Your task to perform on an android device: View the shopping cart on amazon. Image 0: 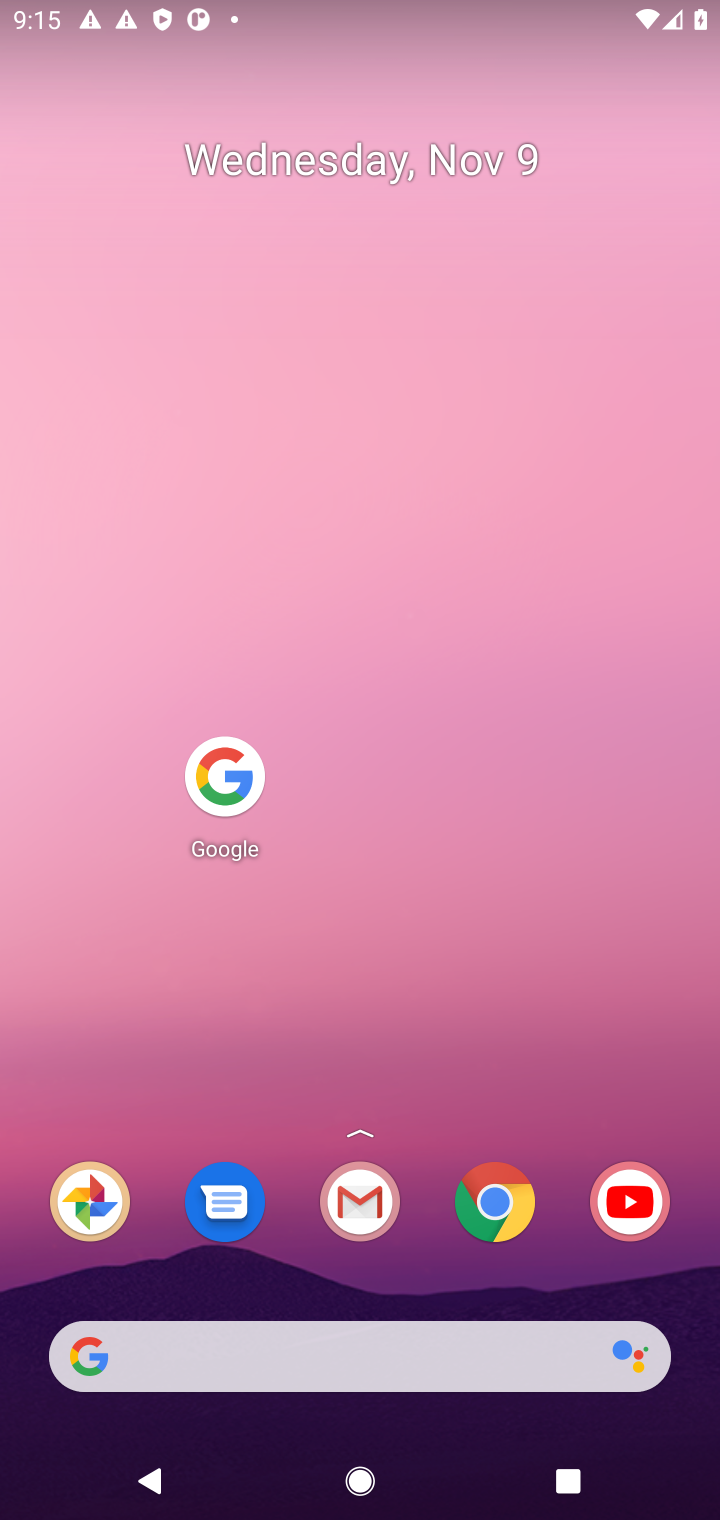
Step 0: click (231, 788)
Your task to perform on an android device: View the shopping cart on amazon. Image 1: 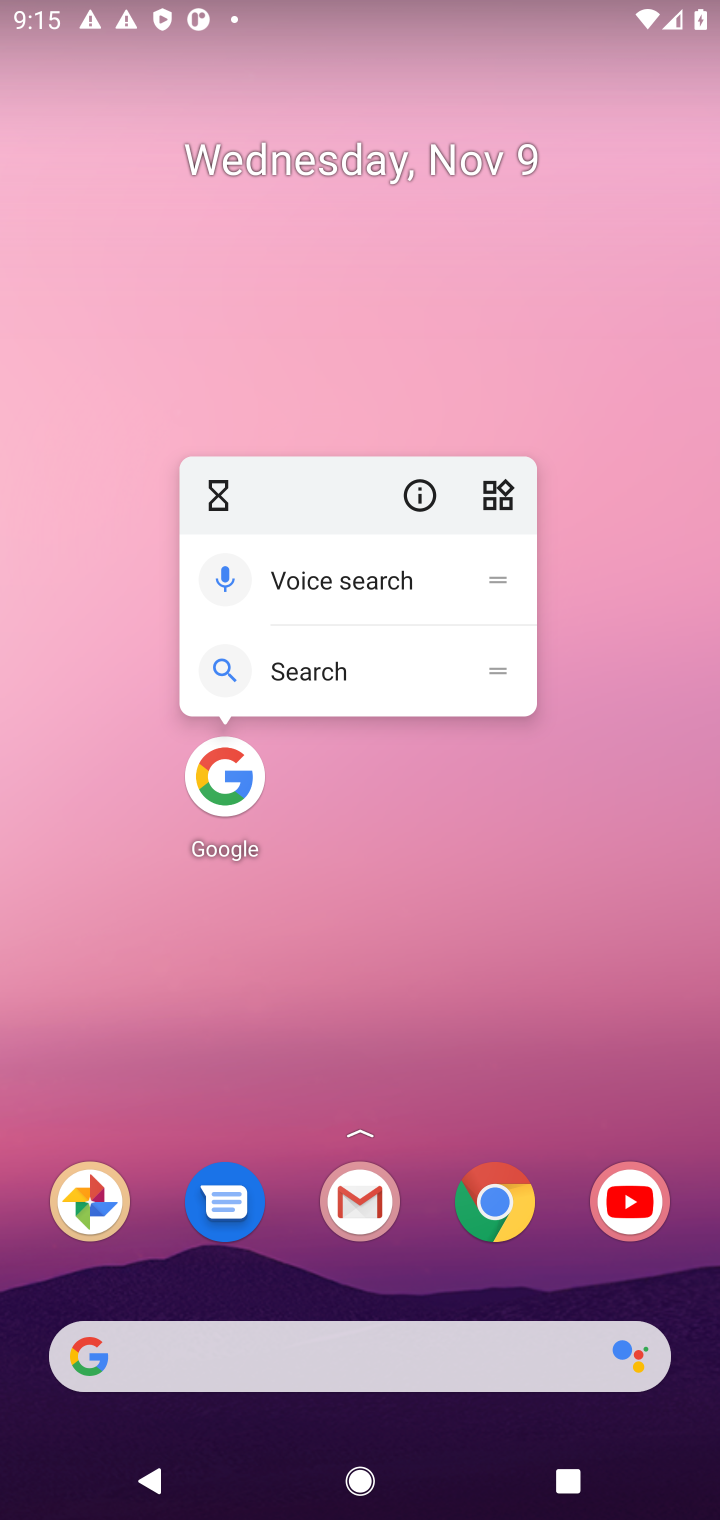
Step 1: click (231, 787)
Your task to perform on an android device: View the shopping cart on amazon. Image 2: 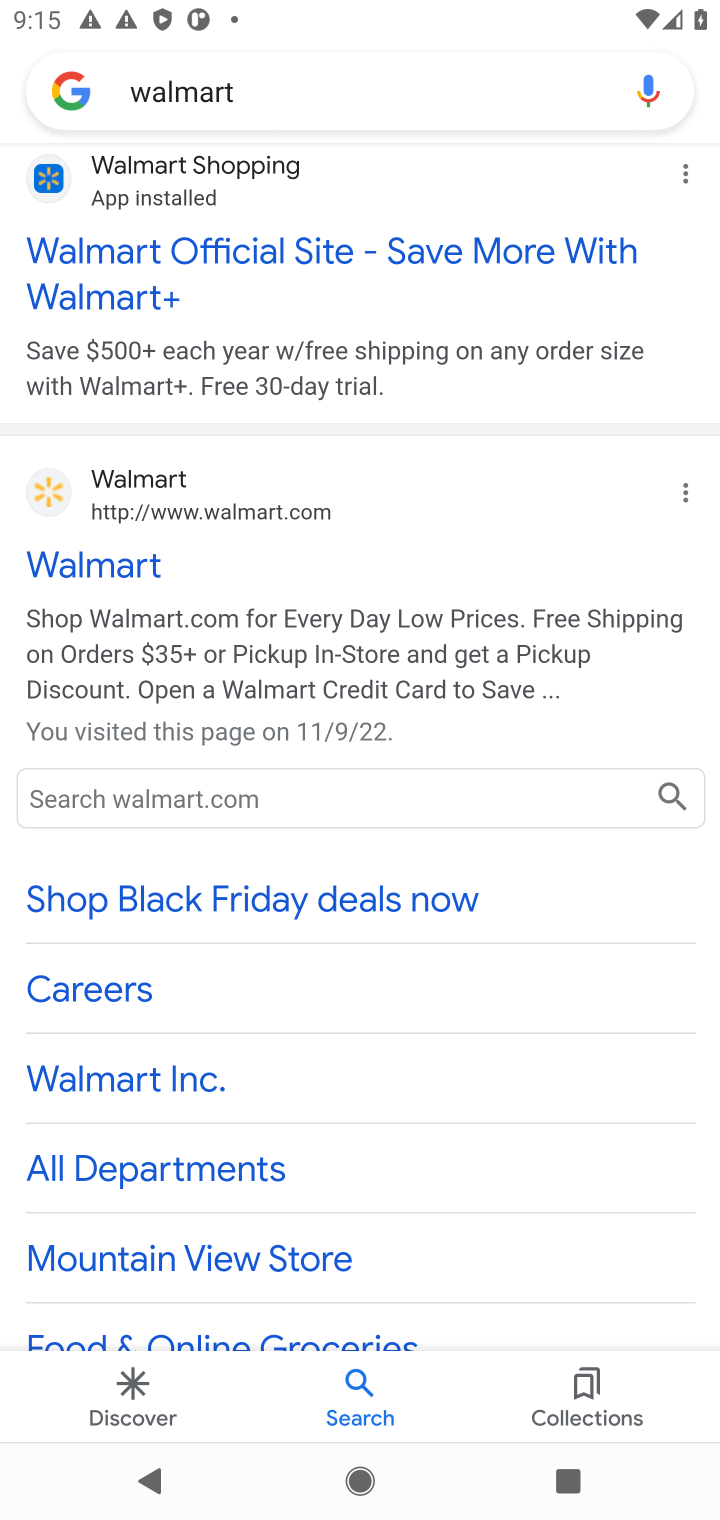
Step 2: click (319, 95)
Your task to perform on an android device: View the shopping cart on amazon. Image 3: 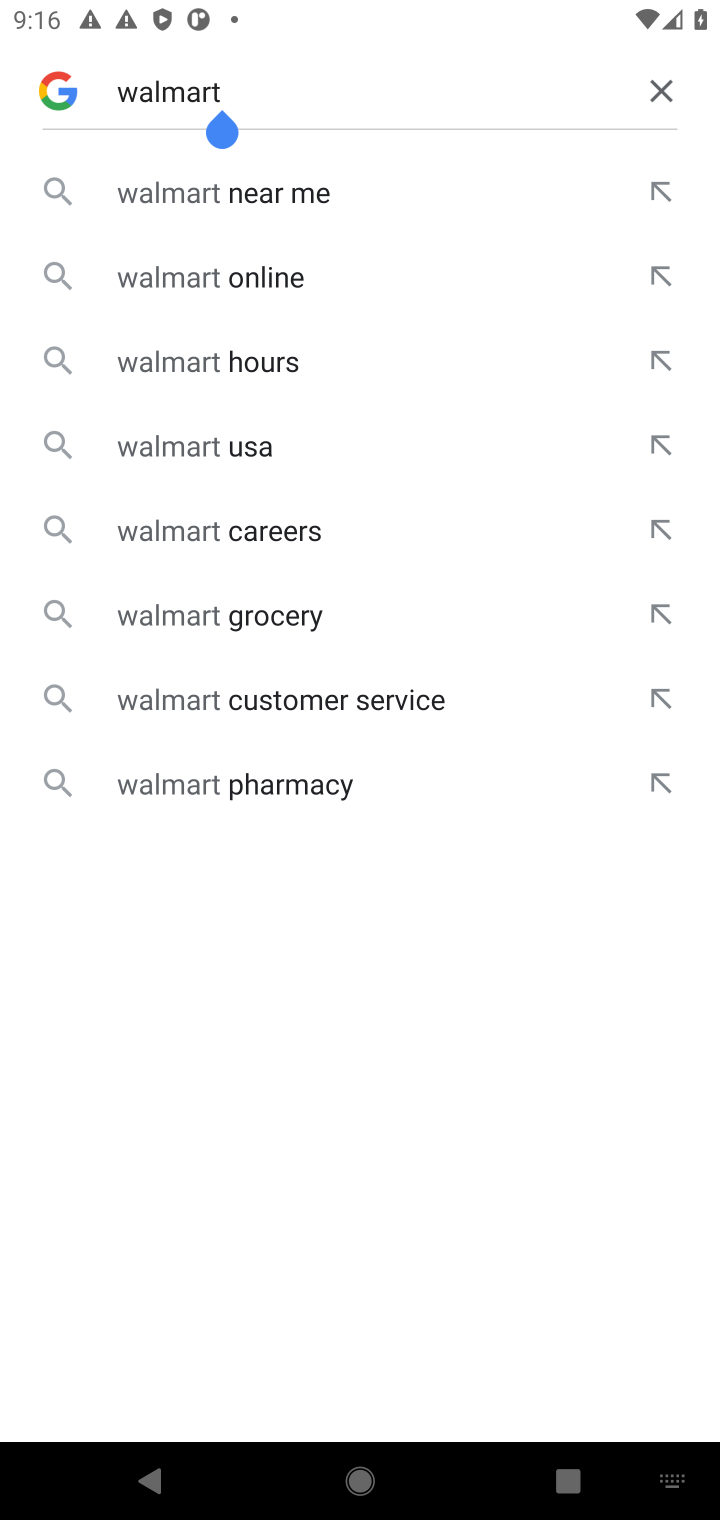
Step 3: click (647, 85)
Your task to perform on an android device: View the shopping cart on amazon. Image 4: 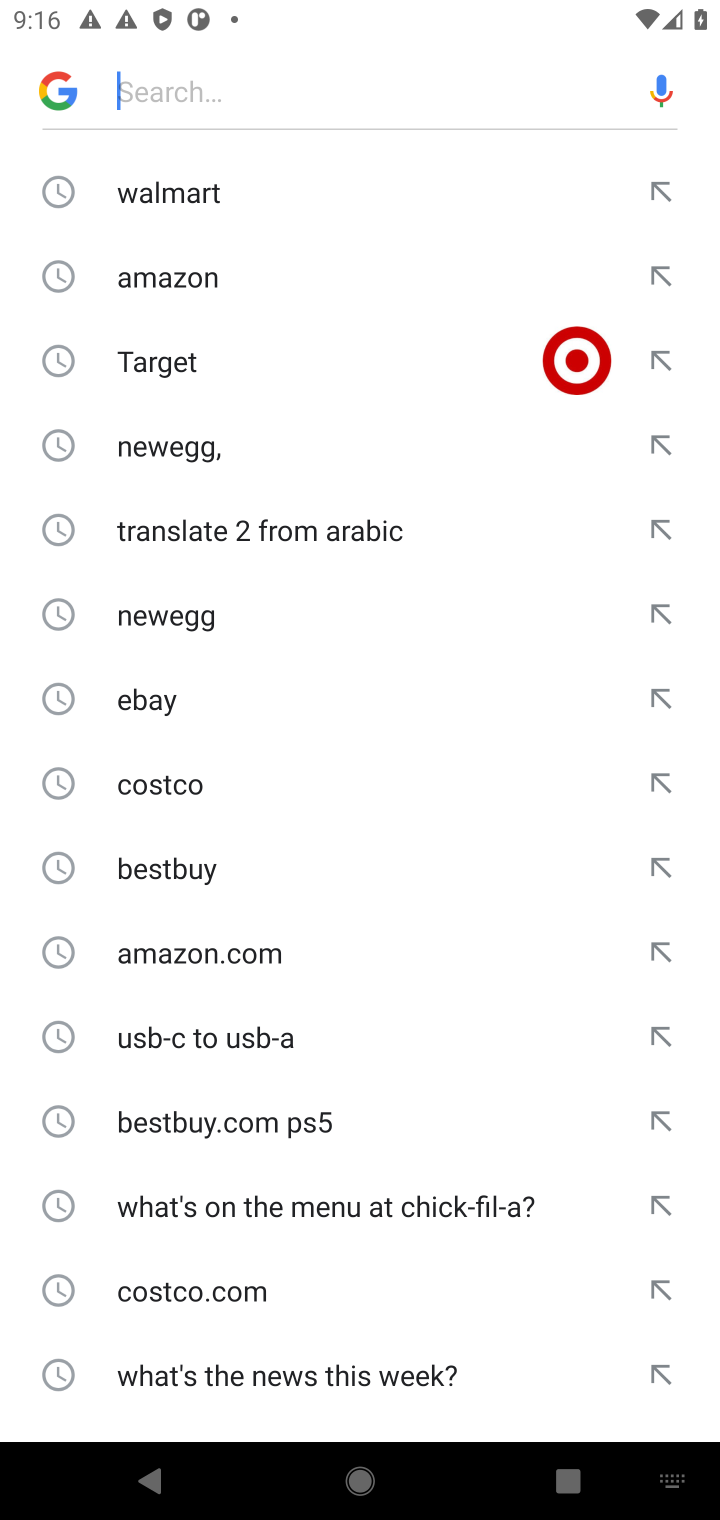
Step 4: click (176, 279)
Your task to perform on an android device: View the shopping cart on amazon. Image 5: 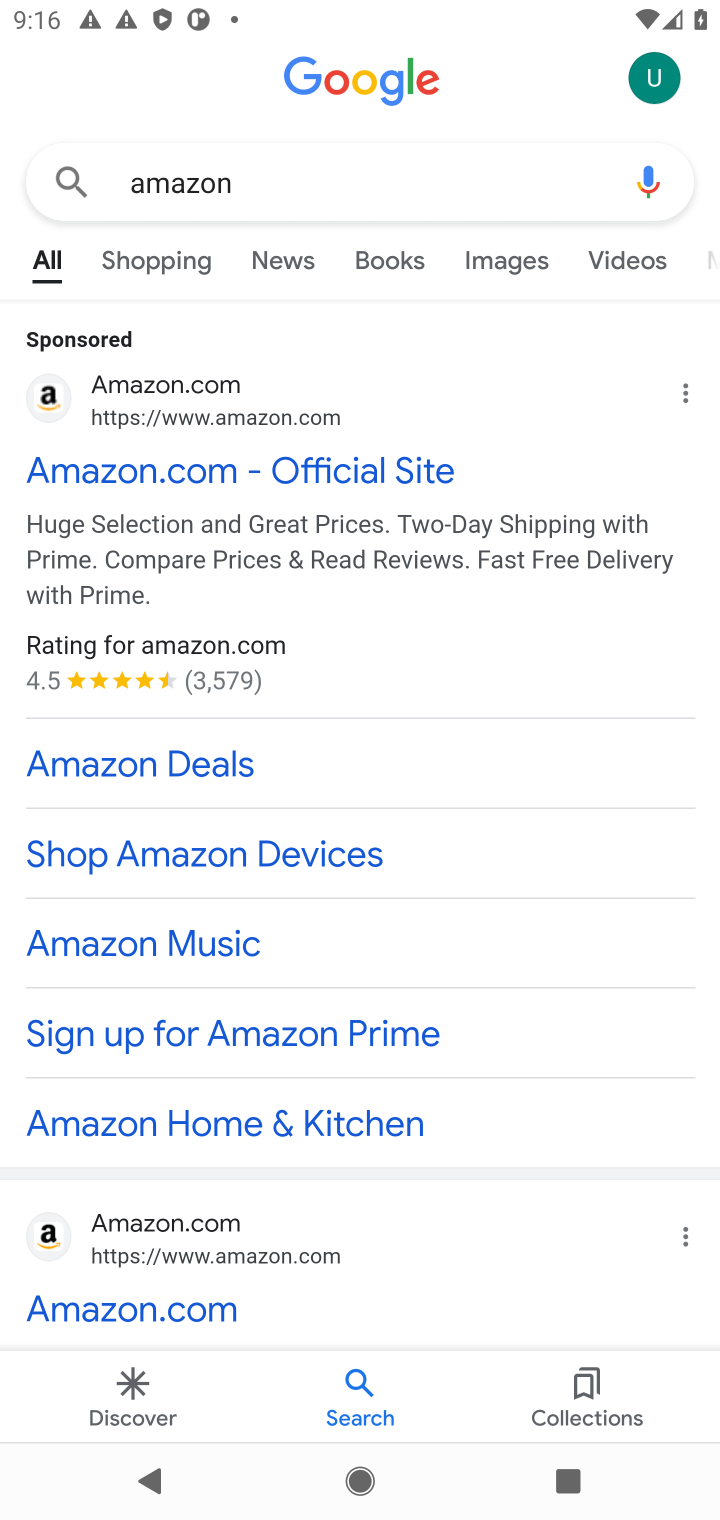
Step 5: click (203, 472)
Your task to perform on an android device: View the shopping cart on amazon. Image 6: 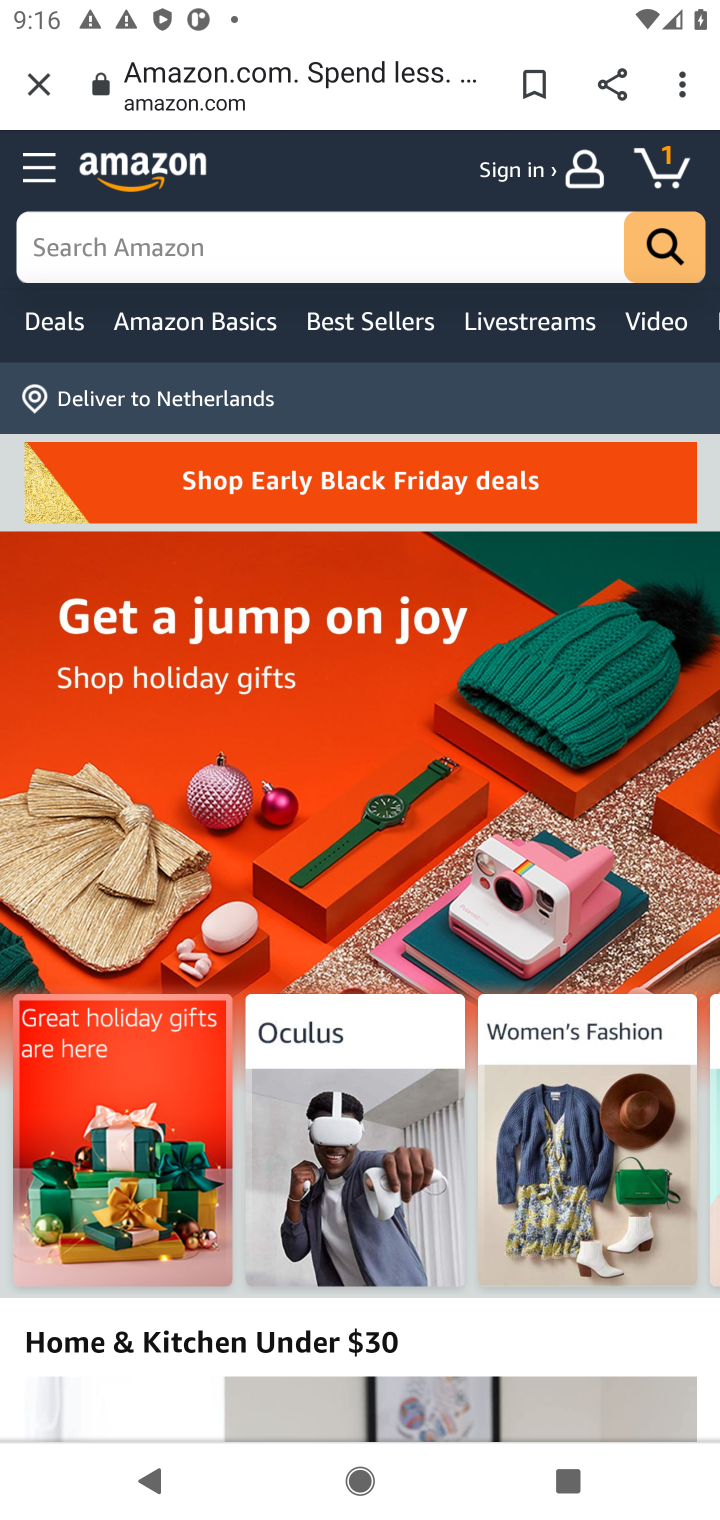
Step 6: click (667, 166)
Your task to perform on an android device: View the shopping cart on amazon. Image 7: 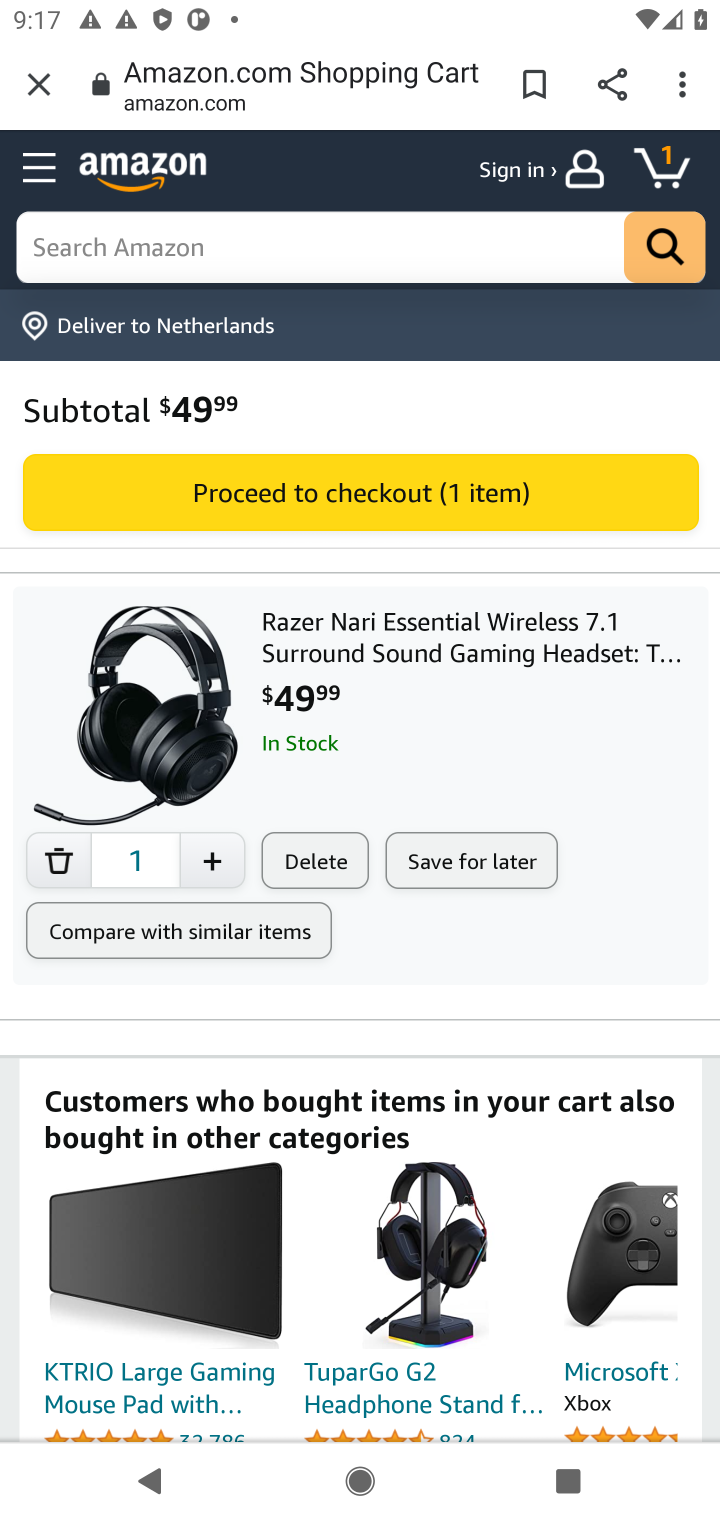
Step 7: task complete